Your task to perform on an android device: Open calendar and show me the second week of next month Image 0: 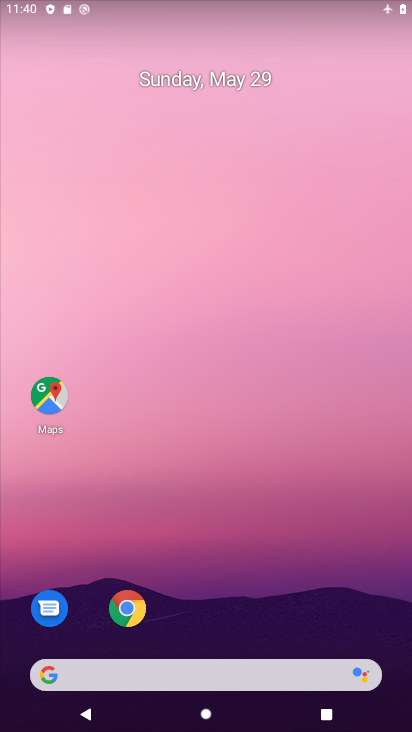
Step 0: drag from (196, 650) to (112, 107)
Your task to perform on an android device: Open calendar and show me the second week of next month Image 1: 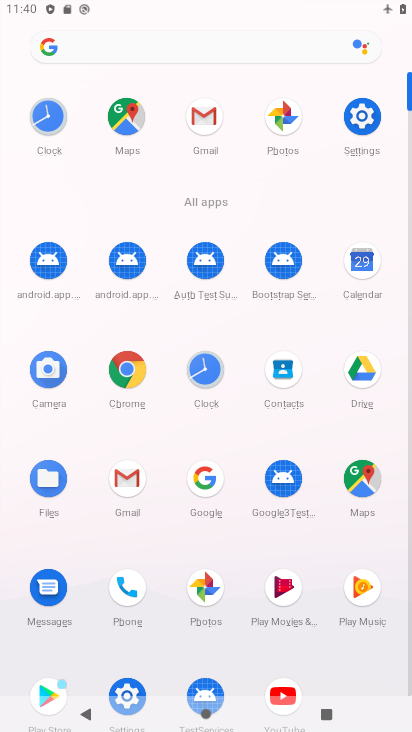
Step 1: click (374, 269)
Your task to perform on an android device: Open calendar and show me the second week of next month Image 2: 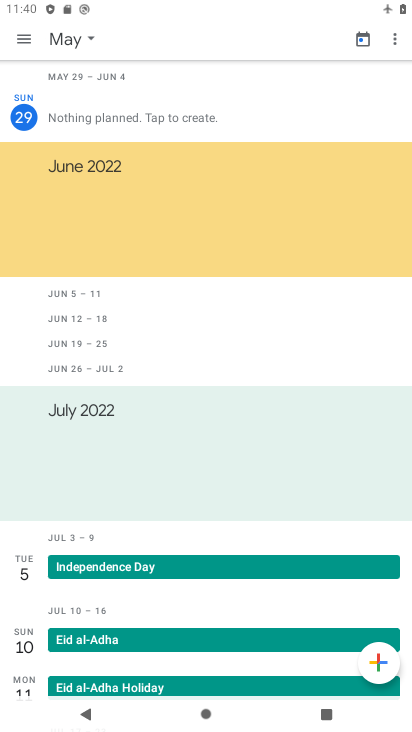
Step 2: click (34, 50)
Your task to perform on an android device: Open calendar and show me the second week of next month Image 3: 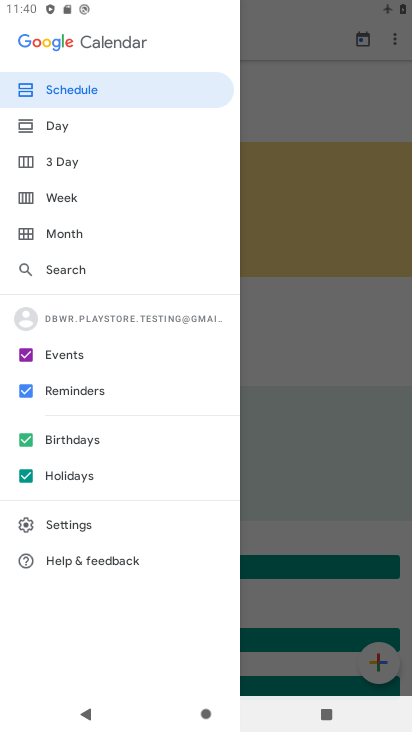
Step 3: click (79, 194)
Your task to perform on an android device: Open calendar and show me the second week of next month Image 4: 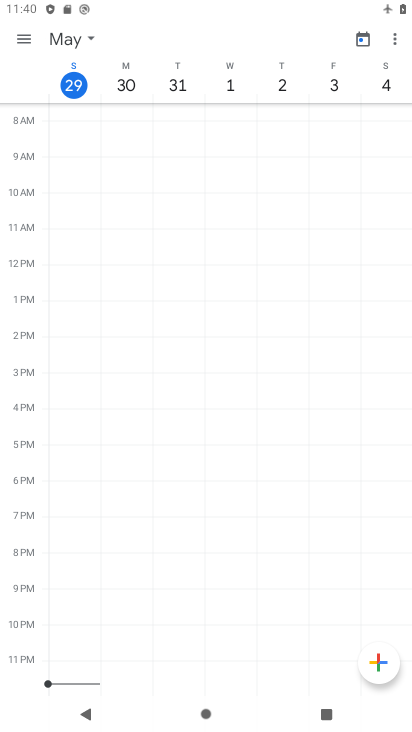
Step 4: task complete